Your task to perform on an android device: find photos in the google photos app Image 0: 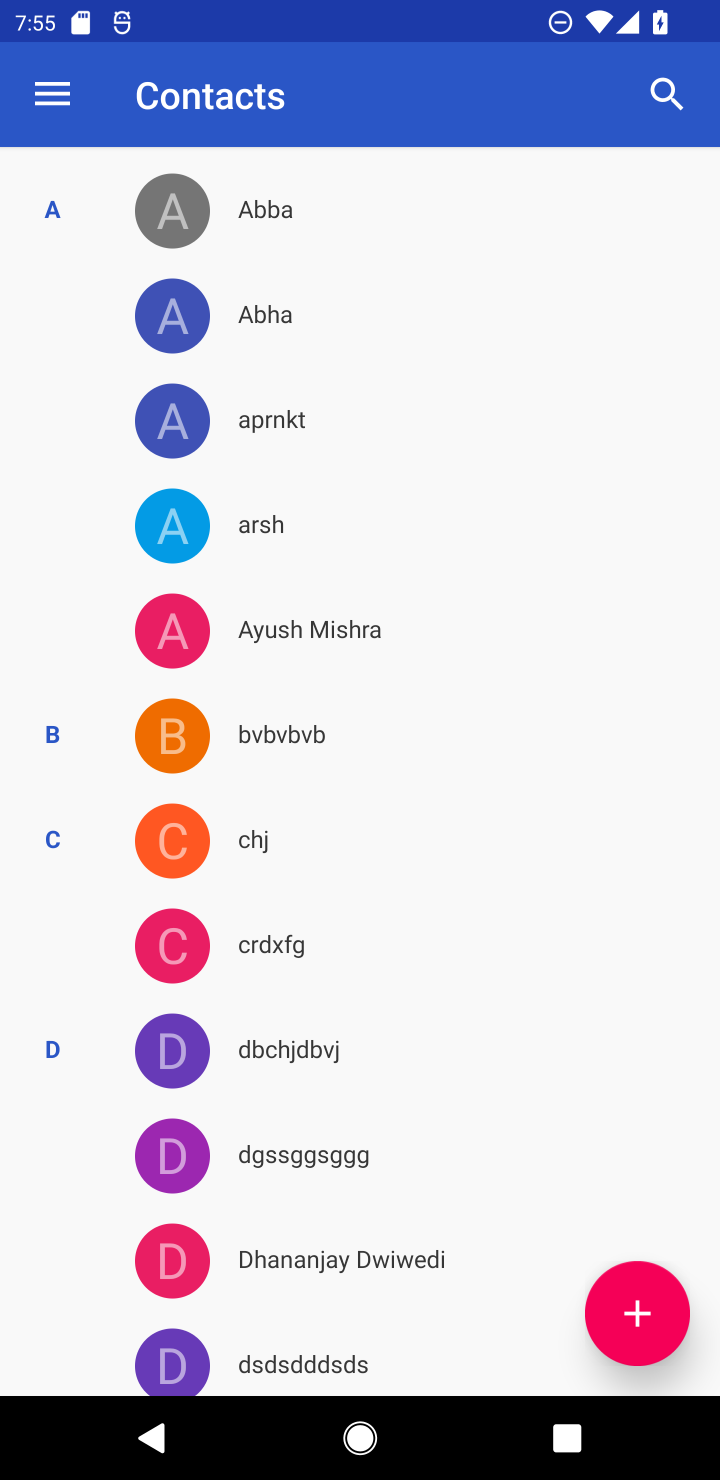
Step 0: press home button
Your task to perform on an android device: find photos in the google photos app Image 1: 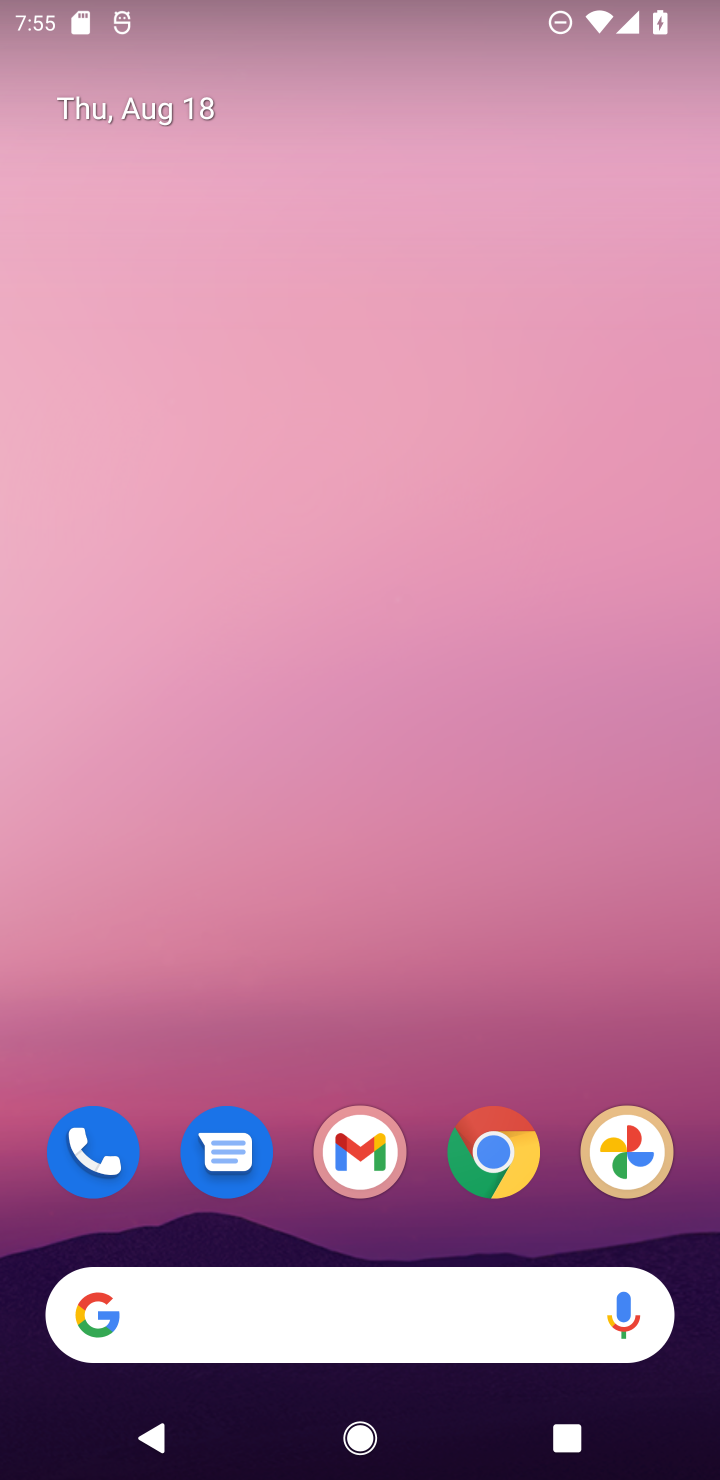
Step 1: drag from (395, 606) to (431, 175)
Your task to perform on an android device: find photos in the google photos app Image 2: 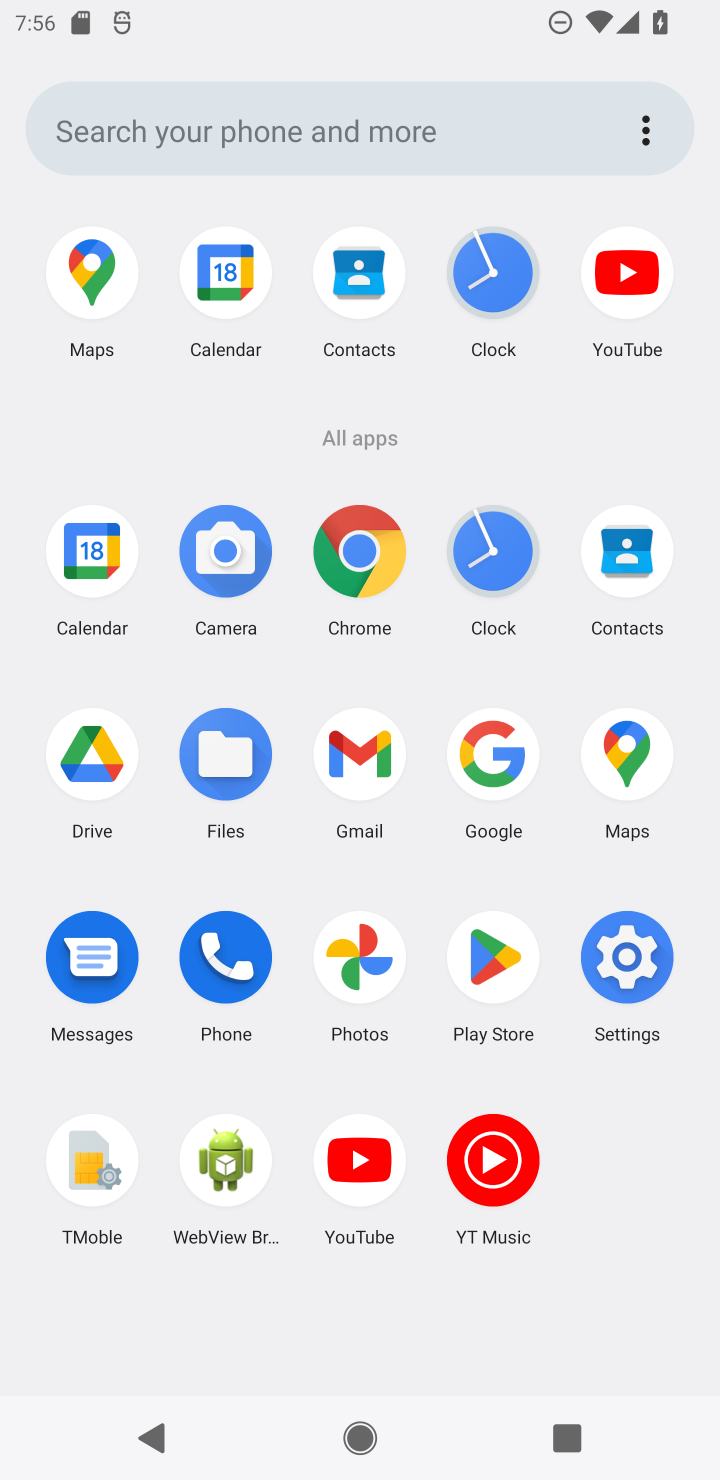
Step 2: click (379, 947)
Your task to perform on an android device: find photos in the google photos app Image 3: 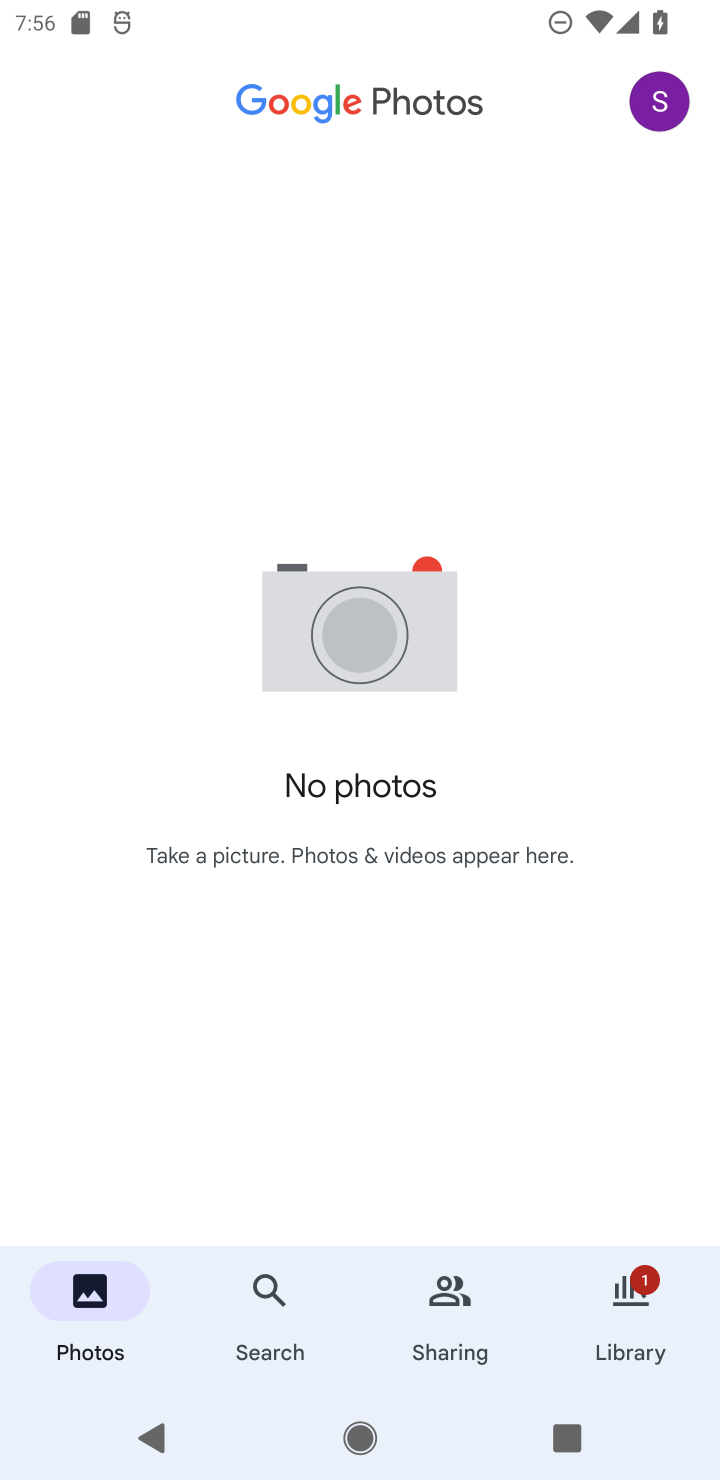
Step 3: click (98, 1316)
Your task to perform on an android device: find photos in the google photos app Image 4: 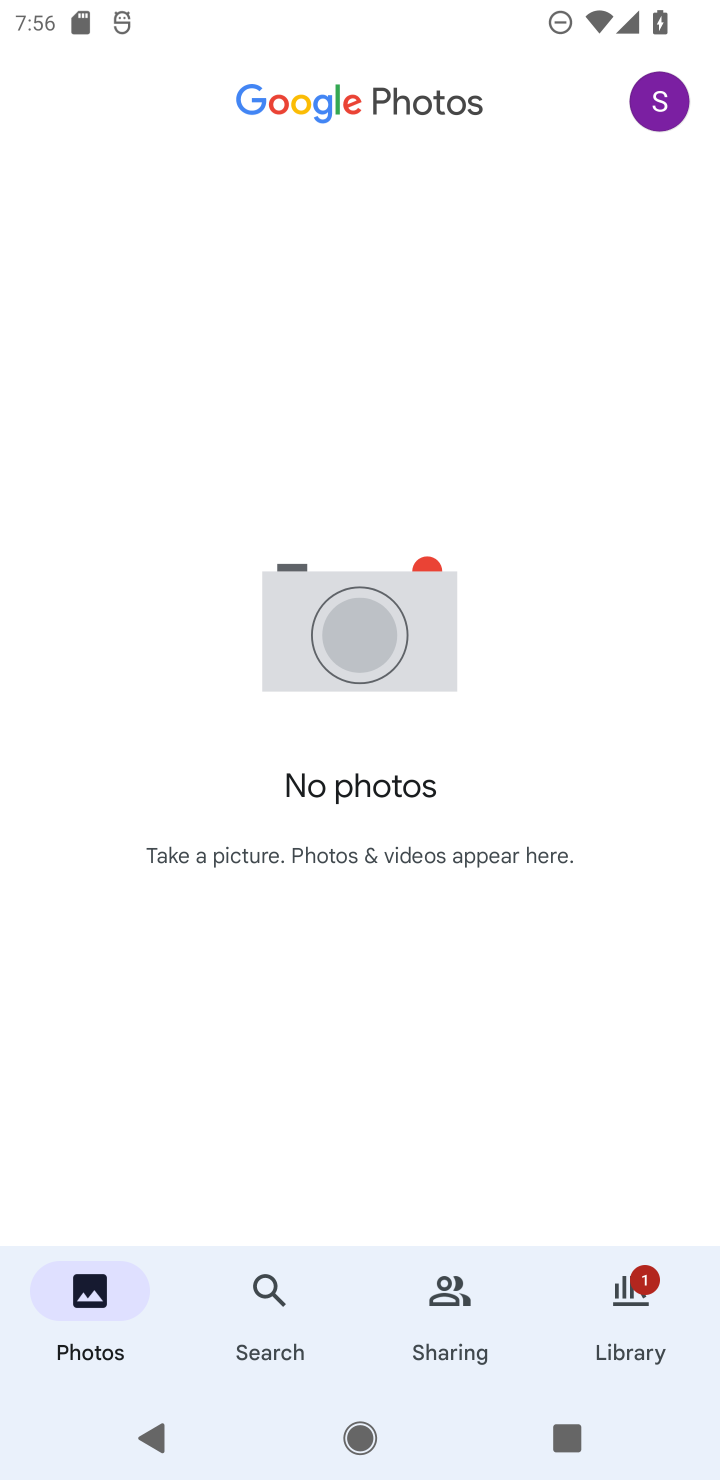
Step 4: task complete